Your task to perform on an android device: What's the weather going to be tomorrow? Image 0: 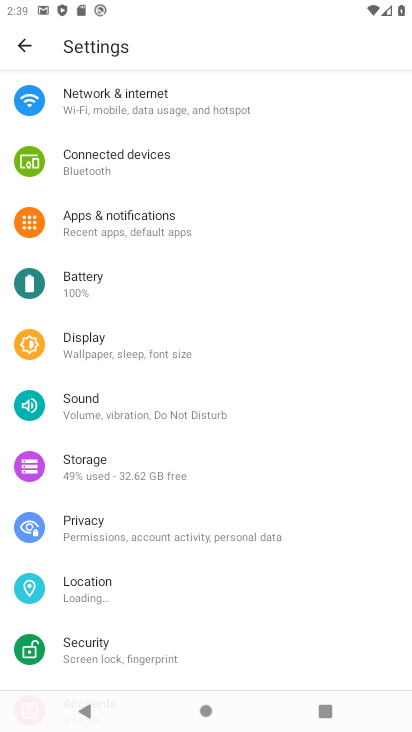
Step 0: press back button
Your task to perform on an android device: What's the weather going to be tomorrow? Image 1: 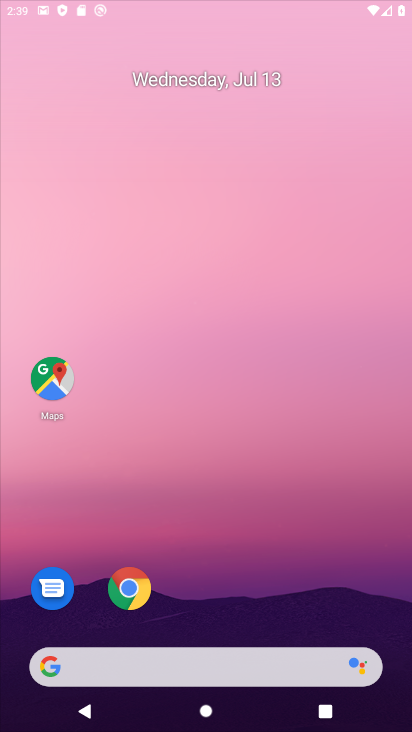
Step 1: drag from (322, 523) to (294, 123)
Your task to perform on an android device: What's the weather going to be tomorrow? Image 2: 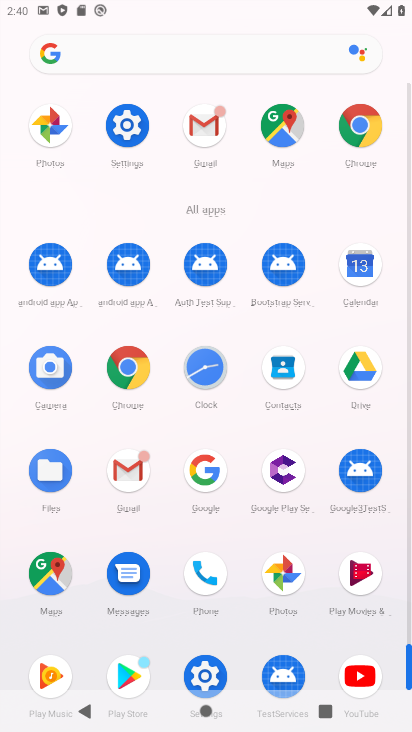
Step 2: click (364, 120)
Your task to perform on an android device: What's the weather going to be tomorrow? Image 3: 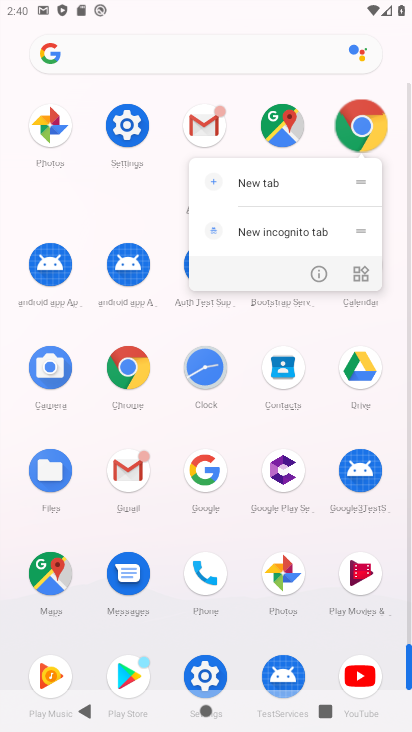
Step 3: click (361, 118)
Your task to perform on an android device: What's the weather going to be tomorrow? Image 4: 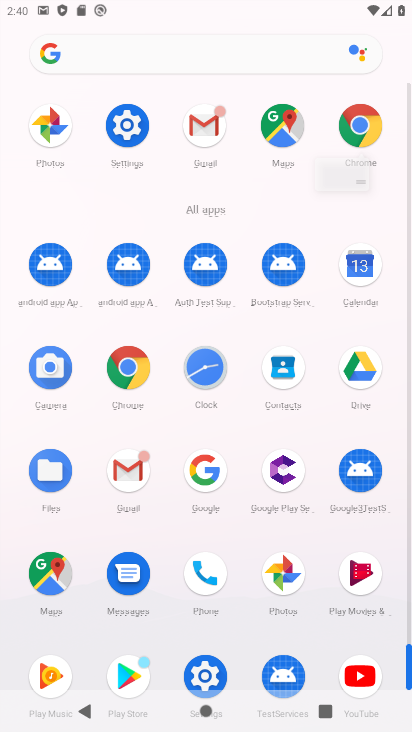
Step 4: click (363, 119)
Your task to perform on an android device: What's the weather going to be tomorrow? Image 5: 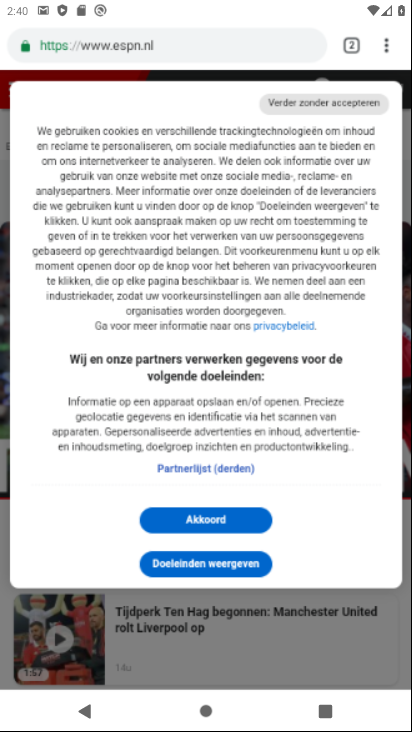
Step 5: click (122, 366)
Your task to perform on an android device: What's the weather going to be tomorrow? Image 6: 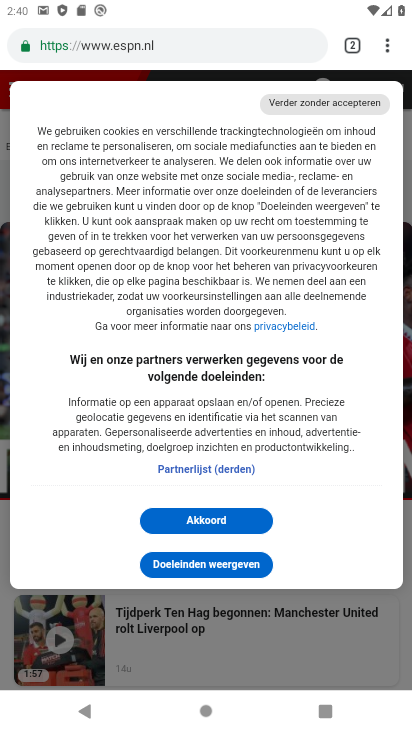
Step 6: click (132, 357)
Your task to perform on an android device: What's the weather going to be tomorrow? Image 7: 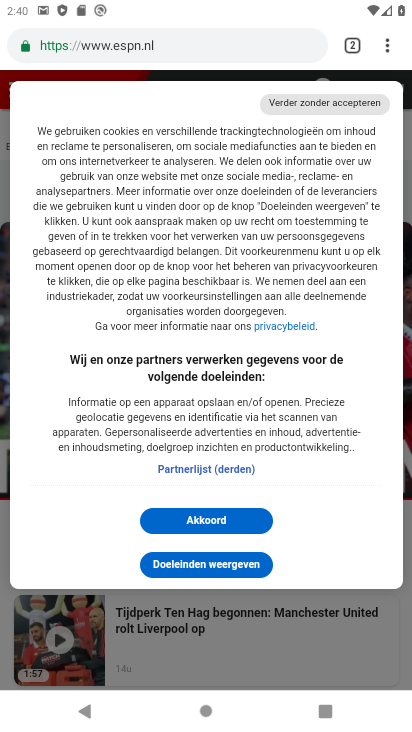
Step 7: click (222, 514)
Your task to perform on an android device: What's the weather going to be tomorrow? Image 8: 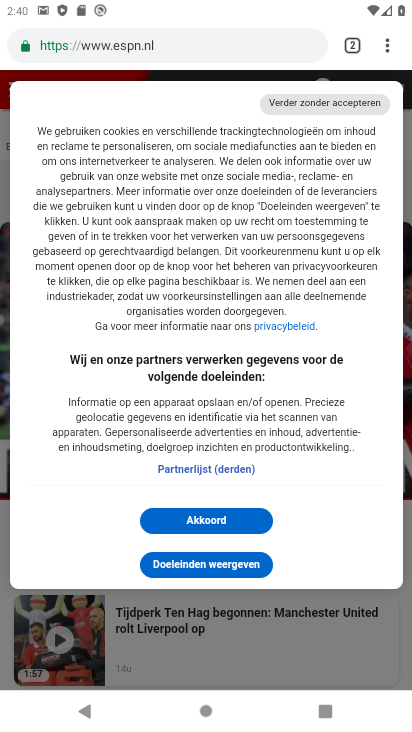
Step 8: click (219, 515)
Your task to perform on an android device: What's the weather going to be tomorrow? Image 9: 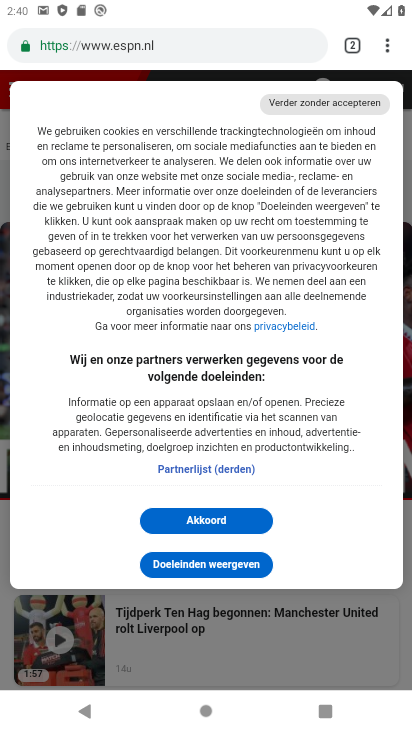
Step 9: click (221, 512)
Your task to perform on an android device: What's the weather going to be tomorrow? Image 10: 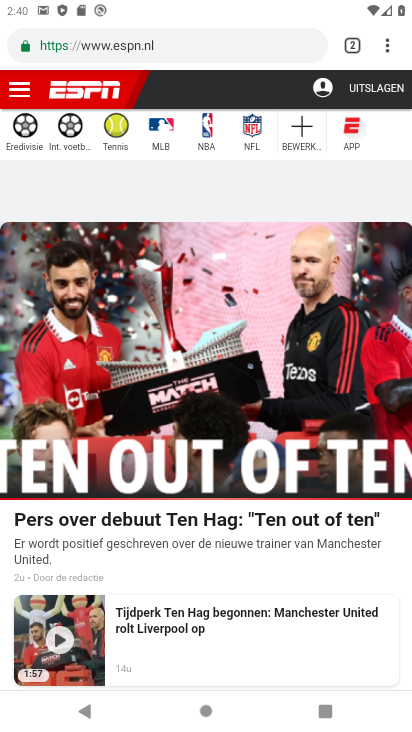
Step 10: click (227, 513)
Your task to perform on an android device: What's the weather going to be tomorrow? Image 11: 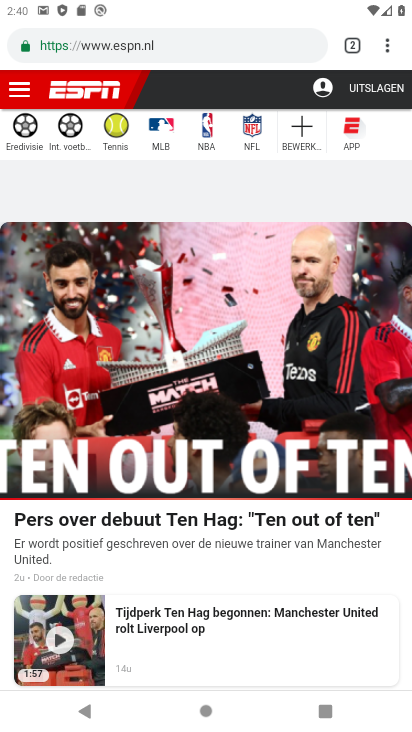
Step 11: click (232, 514)
Your task to perform on an android device: What's the weather going to be tomorrow? Image 12: 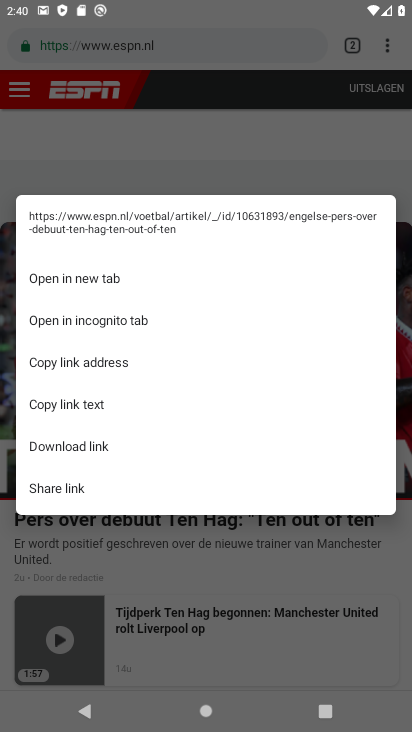
Step 12: press back button
Your task to perform on an android device: What's the weather going to be tomorrow? Image 13: 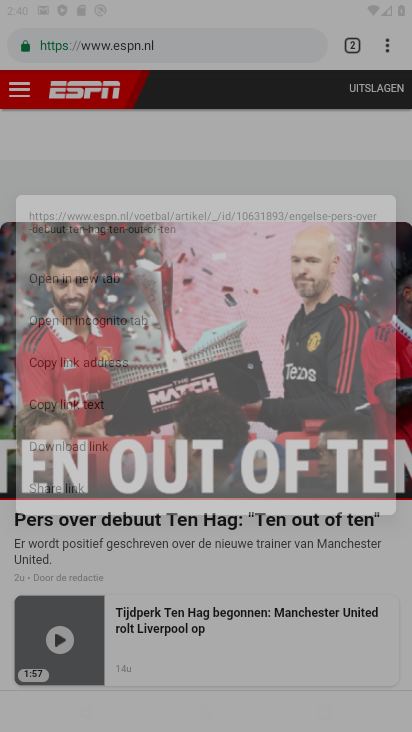
Step 13: press back button
Your task to perform on an android device: What's the weather going to be tomorrow? Image 14: 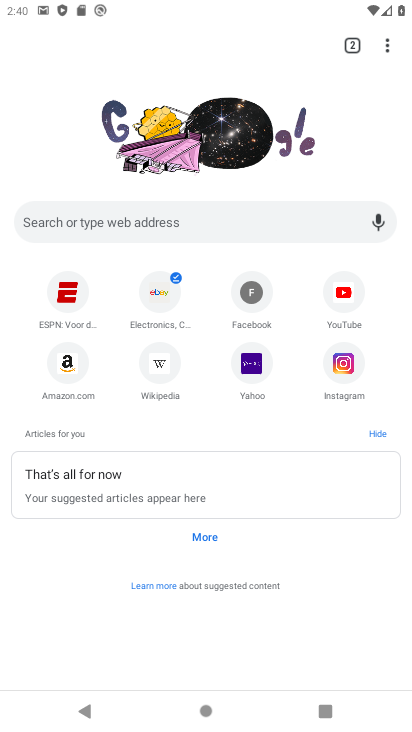
Step 14: type "What's the weather going to be tomorrow?"
Your task to perform on an android device: What's the weather going to be tomorrow? Image 15: 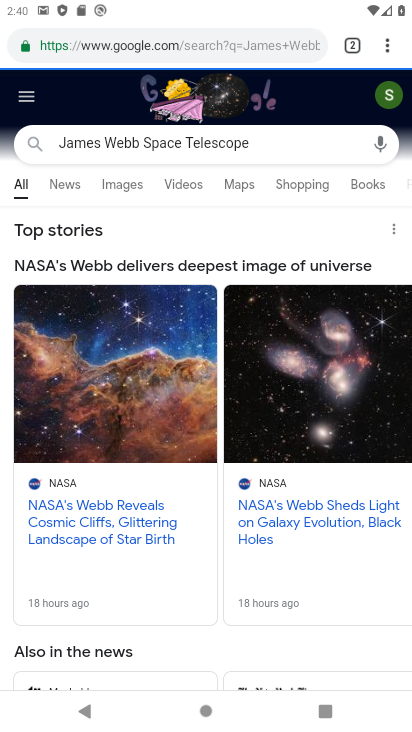
Step 15: click (109, 217)
Your task to perform on an android device: What's the weather going to be tomorrow? Image 16: 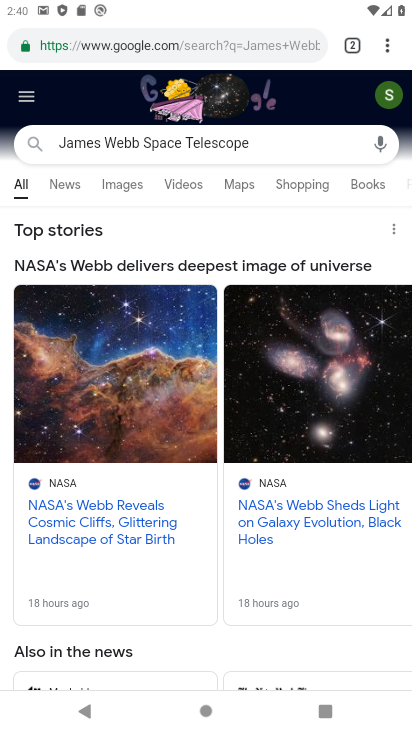
Step 16: click (111, 214)
Your task to perform on an android device: What's the weather going to be tomorrow? Image 17: 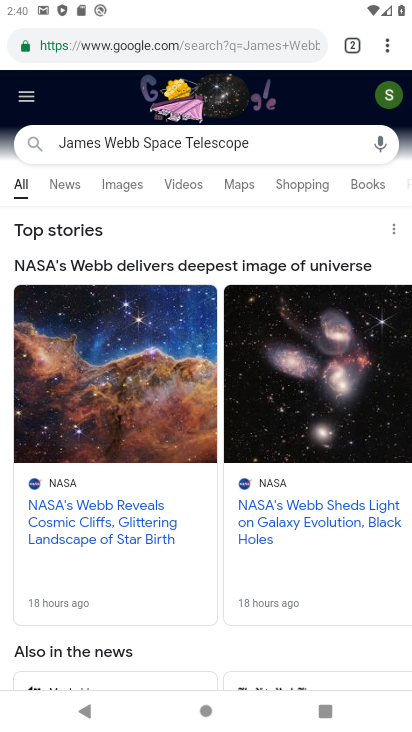
Step 17: click (119, 216)
Your task to perform on an android device: What's the weather going to be tomorrow? Image 18: 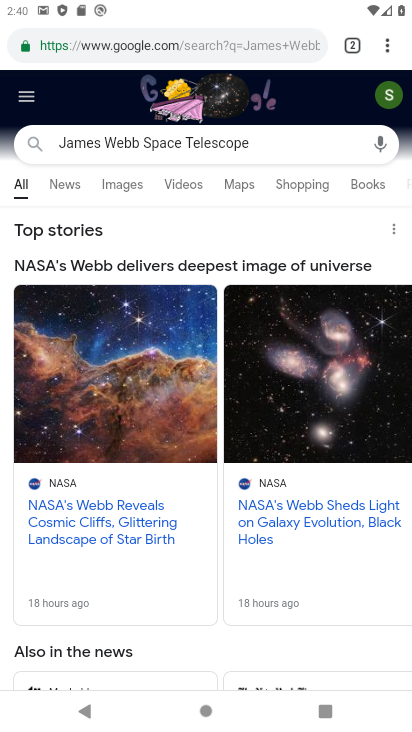
Step 18: click (115, 46)
Your task to perform on an android device: What's the weather going to be tomorrow? Image 19: 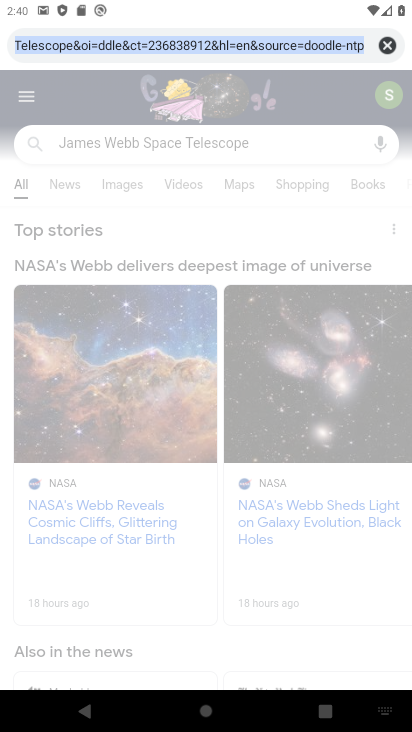
Step 19: click (245, 140)
Your task to perform on an android device: What's the weather going to be tomorrow? Image 20: 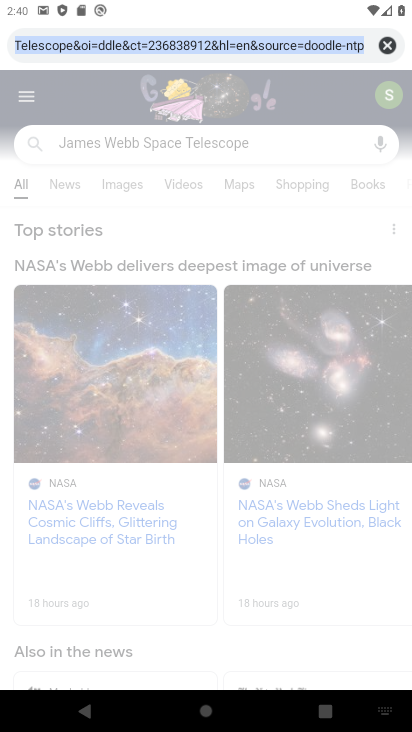
Step 20: click (268, 140)
Your task to perform on an android device: What's the weather going to be tomorrow? Image 21: 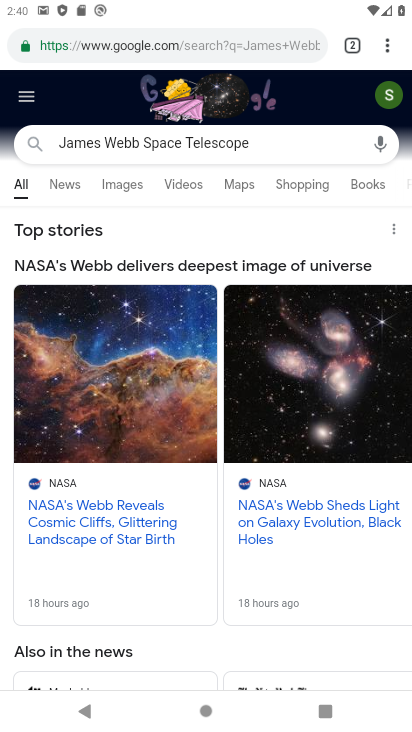
Step 21: click (238, 128)
Your task to perform on an android device: What's the weather going to be tomorrow? Image 22: 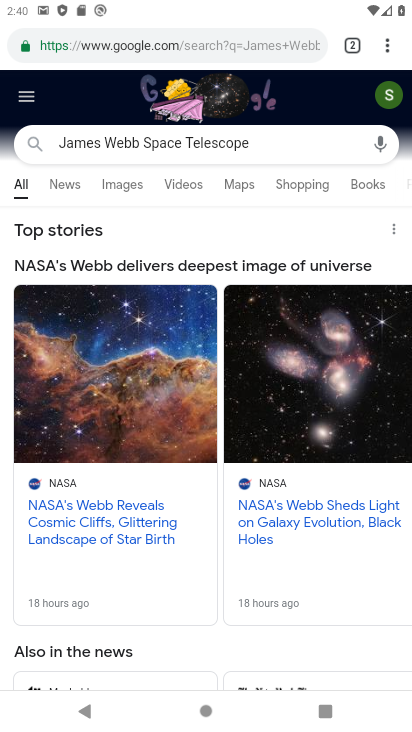
Step 22: click (254, 140)
Your task to perform on an android device: What's the weather going to be tomorrow? Image 23: 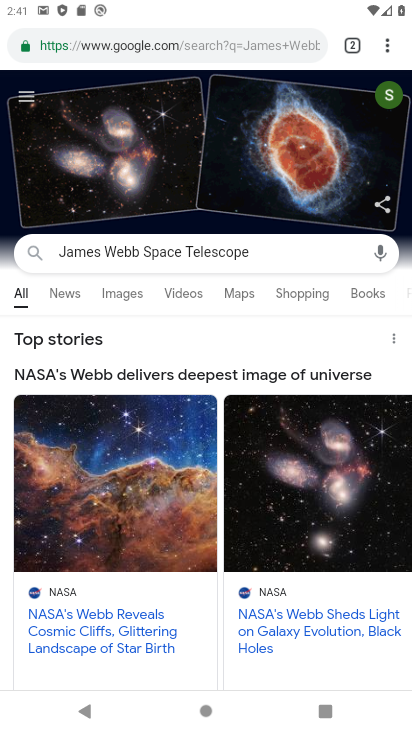
Step 23: click (385, 49)
Your task to perform on an android device: What's the weather going to be tomorrow? Image 24: 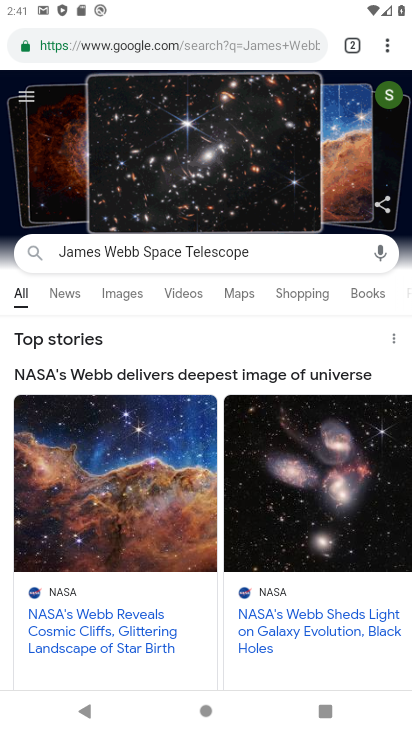
Step 24: drag from (386, 49) to (234, 95)
Your task to perform on an android device: What's the weather going to be tomorrow? Image 25: 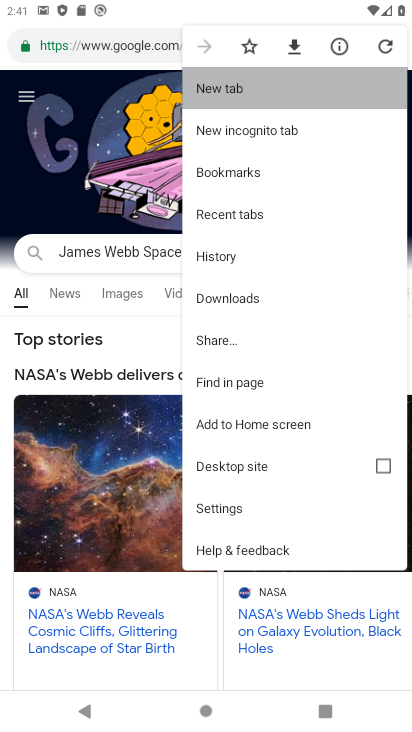
Step 25: click (235, 94)
Your task to perform on an android device: What's the weather going to be tomorrow? Image 26: 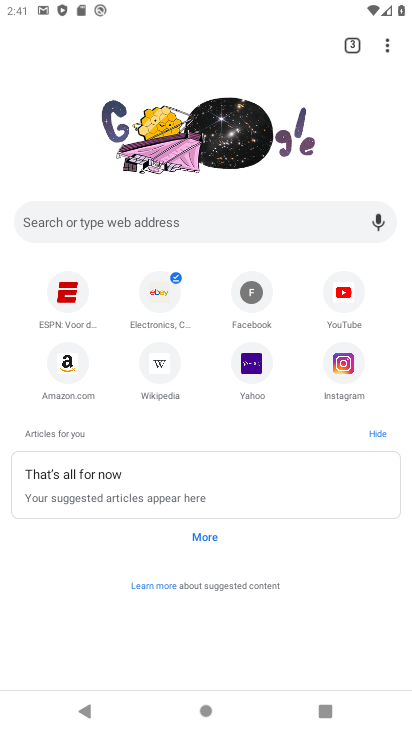
Step 26: drag from (154, 224) to (206, 237)
Your task to perform on an android device: What's the weather going to be tomorrow? Image 27: 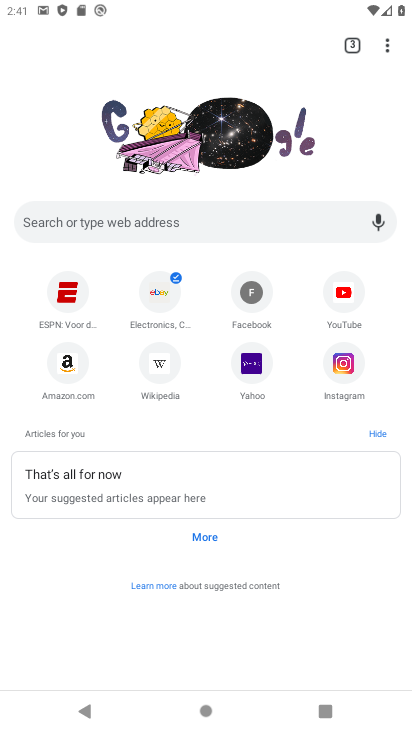
Step 27: type "tomorrow weather"
Your task to perform on an android device: What's the weather going to be tomorrow? Image 28: 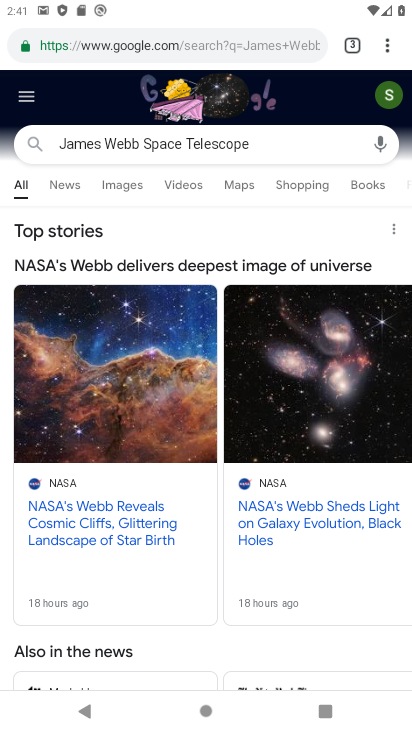
Step 28: task complete